Your task to perform on an android device: turn on airplane mode Image 0: 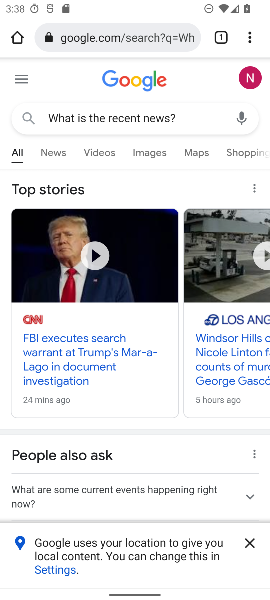
Step 0: click (246, 35)
Your task to perform on an android device: turn on airplane mode Image 1: 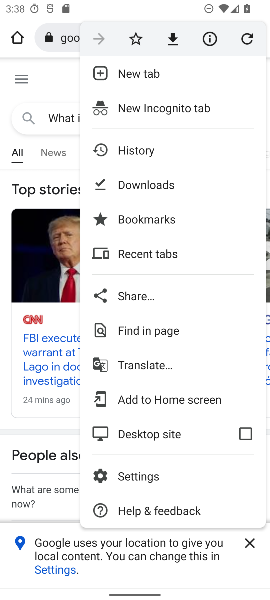
Step 1: click (171, 467)
Your task to perform on an android device: turn on airplane mode Image 2: 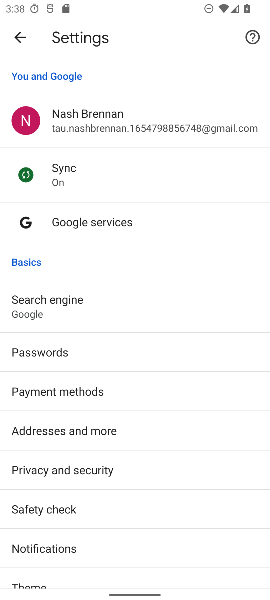
Step 2: press home button
Your task to perform on an android device: turn on airplane mode Image 3: 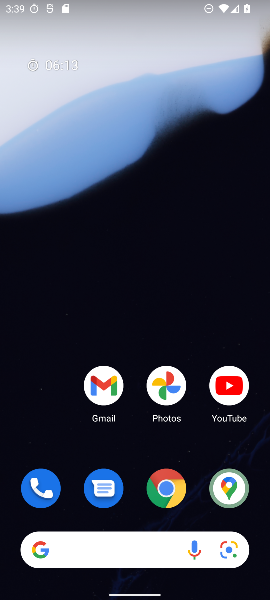
Step 3: drag from (201, 469) to (171, 111)
Your task to perform on an android device: turn on airplane mode Image 4: 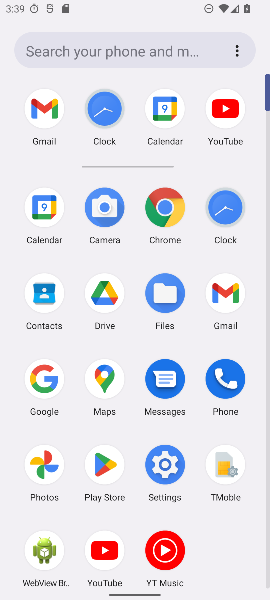
Step 4: click (171, 454)
Your task to perform on an android device: turn on airplane mode Image 5: 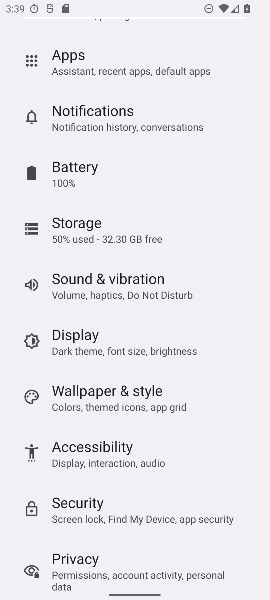
Step 5: drag from (147, 100) to (142, 523)
Your task to perform on an android device: turn on airplane mode Image 6: 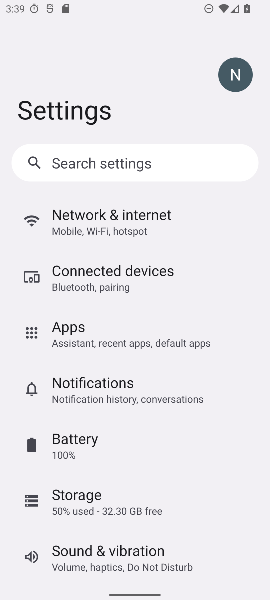
Step 6: click (128, 233)
Your task to perform on an android device: turn on airplane mode Image 7: 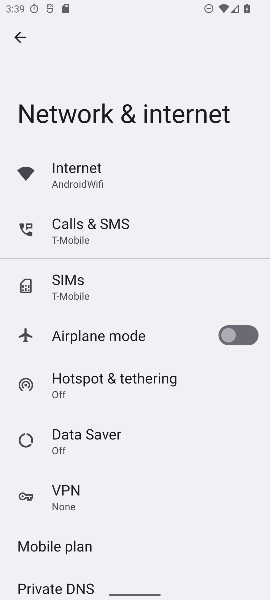
Step 7: click (242, 349)
Your task to perform on an android device: turn on airplane mode Image 8: 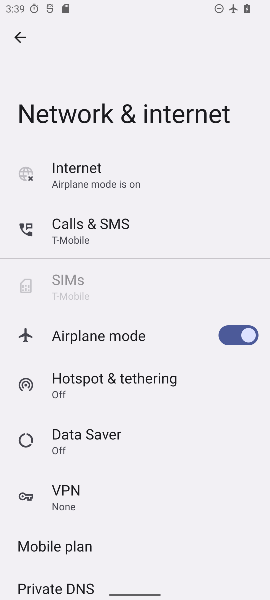
Step 8: task complete